Your task to perform on an android device: Open maps Image 0: 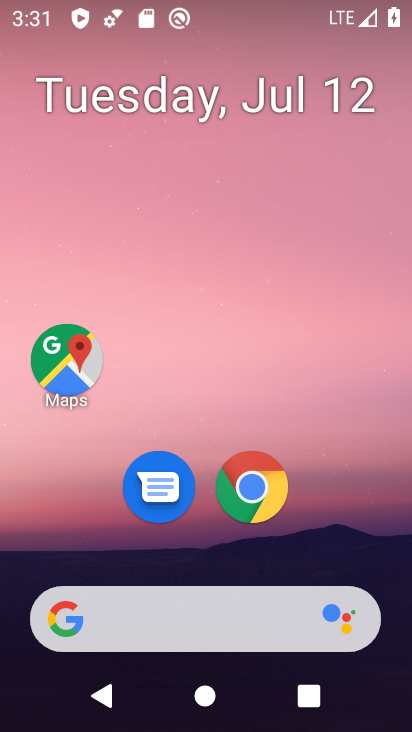
Step 0: drag from (222, 640) to (263, 93)
Your task to perform on an android device: Open maps Image 1: 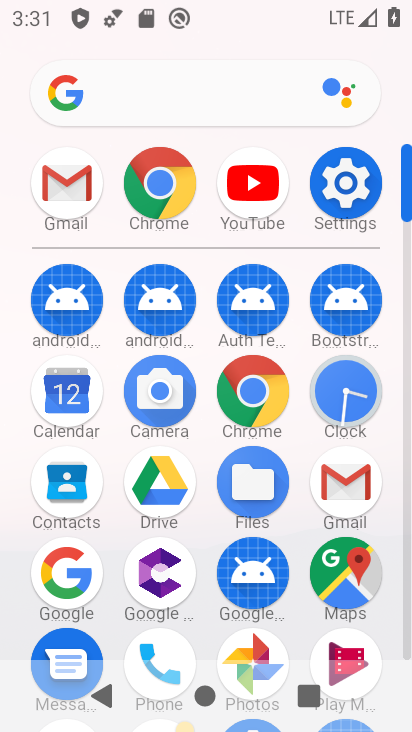
Step 1: drag from (217, 494) to (245, 270)
Your task to perform on an android device: Open maps Image 2: 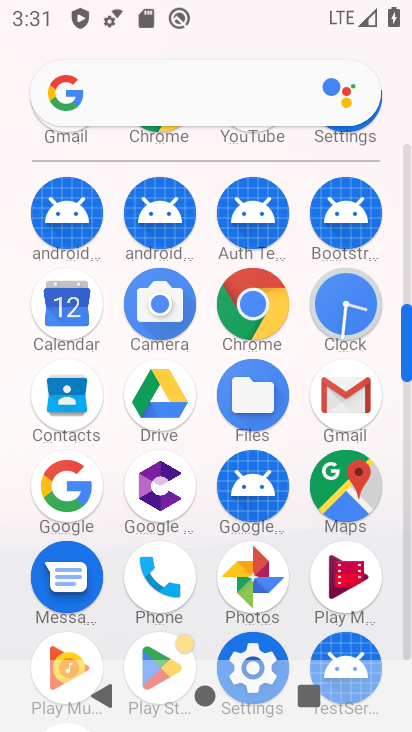
Step 2: click (346, 418)
Your task to perform on an android device: Open maps Image 3: 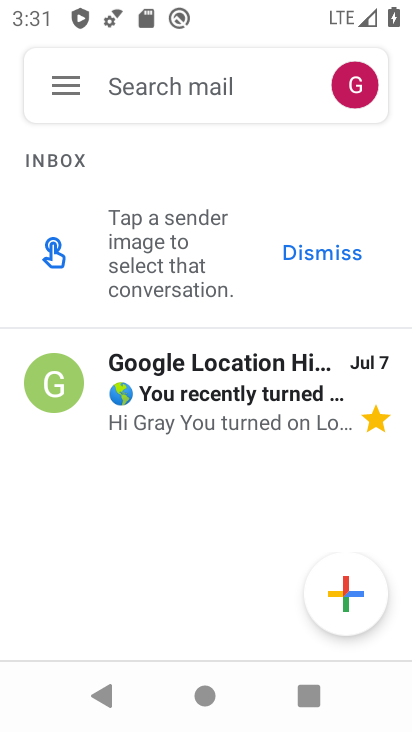
Step 3: press home button
Your task to perform on an android device: Open maps Image 4: 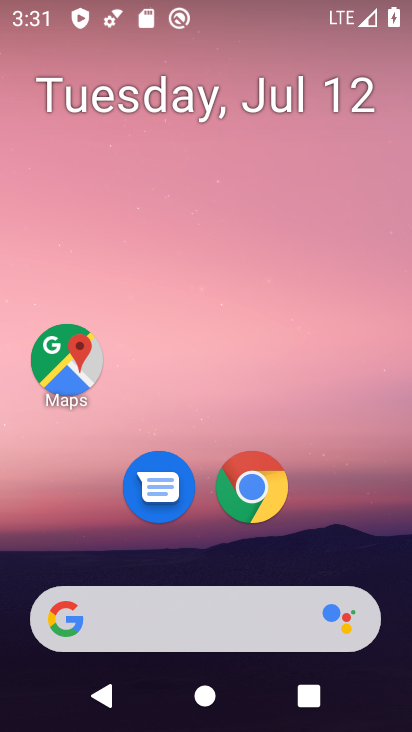
Step 4: drag from (234, 496) to (270, 25)
Your task to perform on an android device: Open maps Image 5: 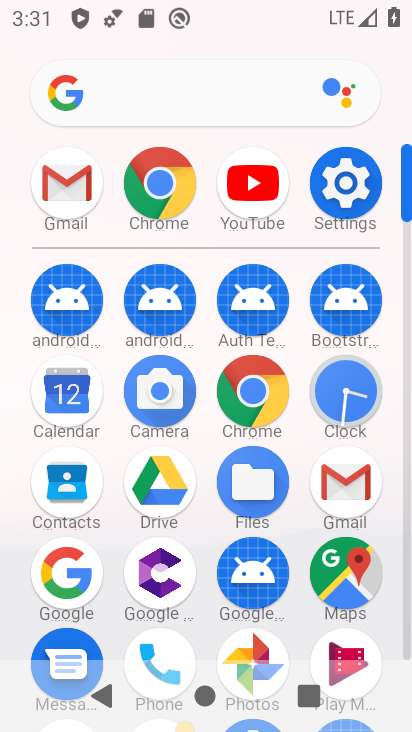
Step 5: click (352, 579)
Your task to perform on an android device: Open maps Image 6: 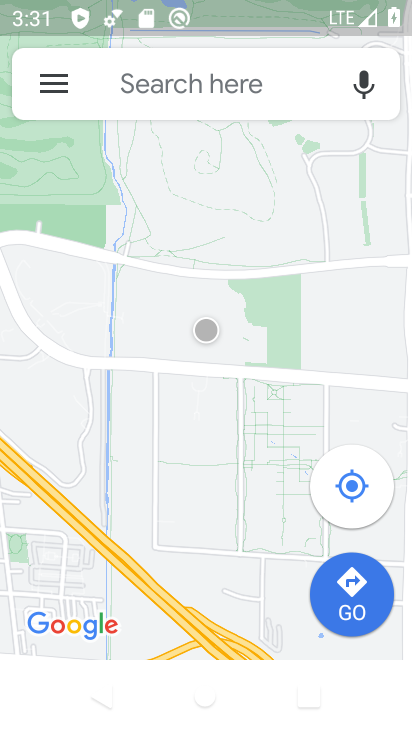
Step 6: task complete